Your task to perform on an android device: Search for Mexican restaurants on Maps Image 0: 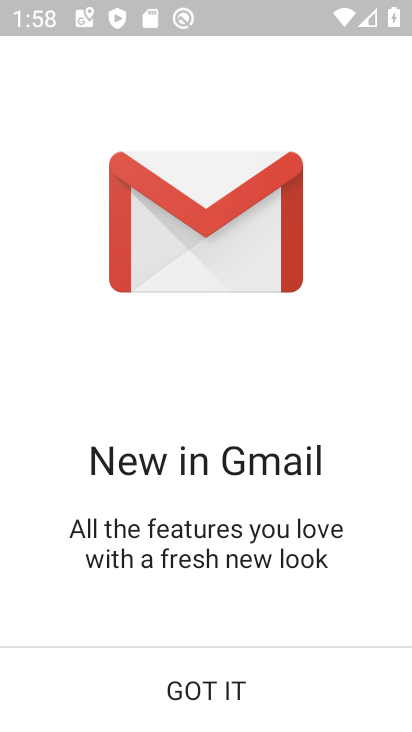
Step 0: press home button
Your task to perform on an android device: Search for Mexican restaurants on Maps Image 1: 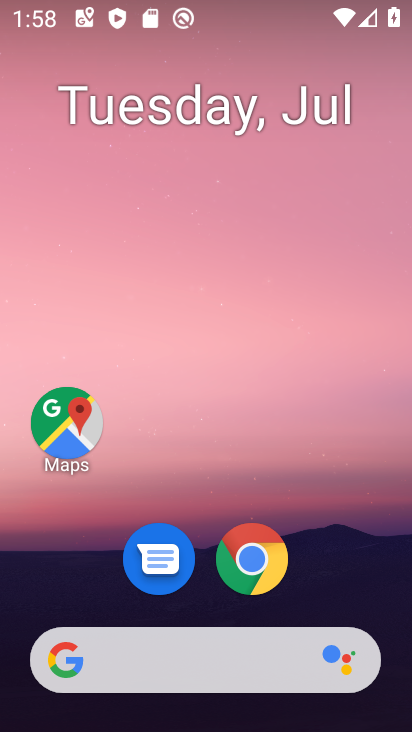
Step 1: drag from (354, 591) to (377, 179)
Your task to perform on an android device: Search for Mexican restaurants on Maps Image 2: 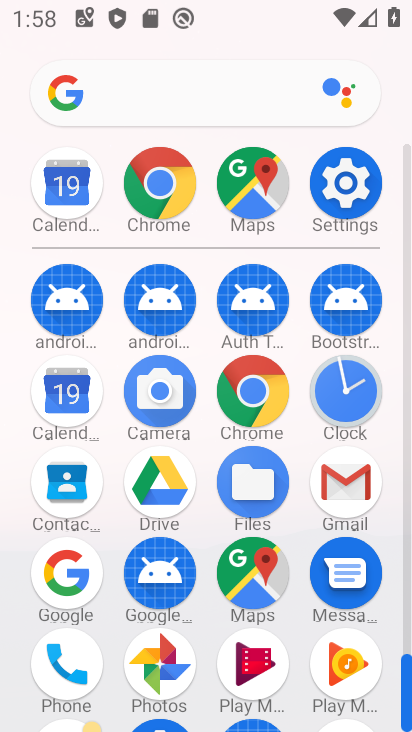
Step 2: click (258, 572)
Your task to perform on an android device: Search for Mexican restaurants on Maps Image 3: 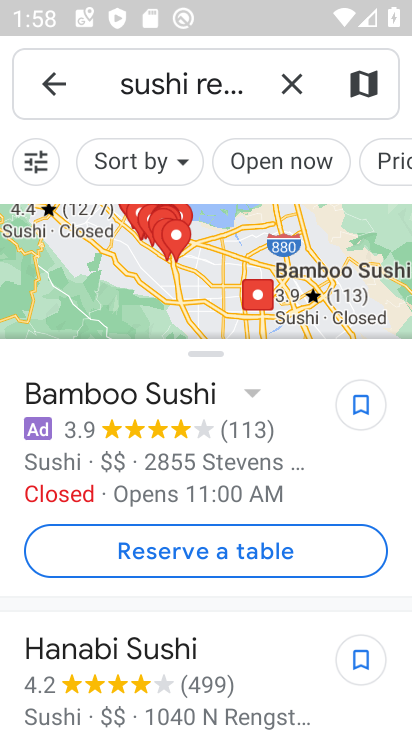
Step 3: press back button
Your task to perform on an android device: Search for Mexican restaurants on Maps Image 4: 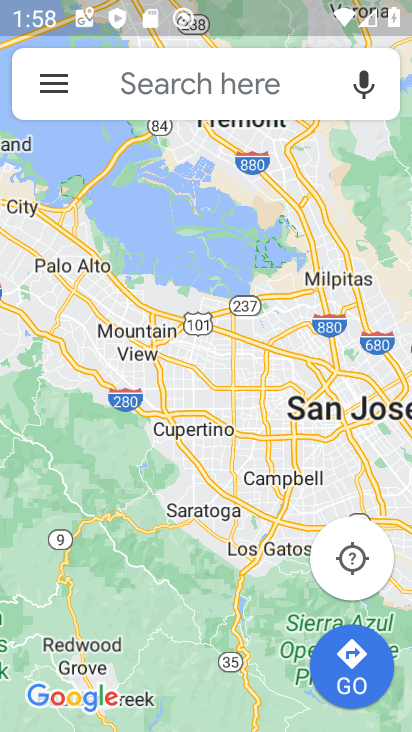
Step 4: click (280, 97)
Your task to perform on an android device: Search for Mexican restaurants on Maps Image 5: 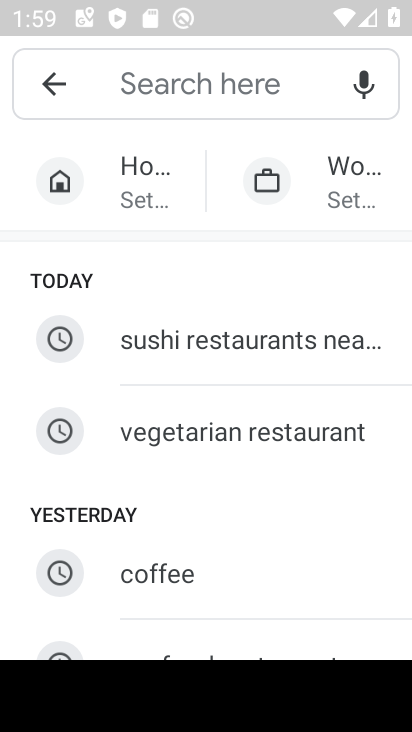
Step 5: type "mexican restaurants"
Your task to perform on an android device: Search for Mexican restaurants on Maps Image 6: 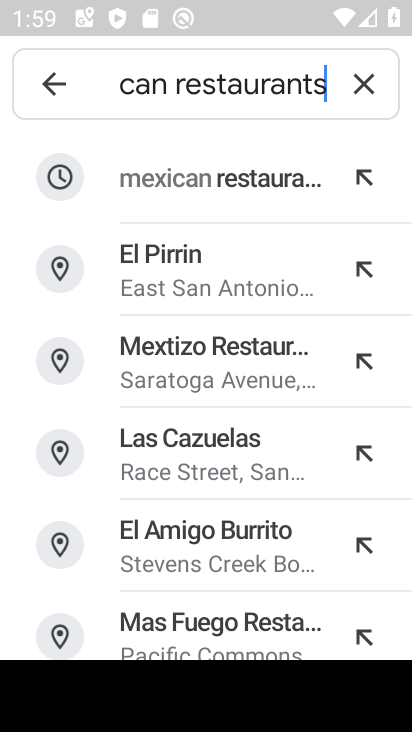
Step 6: click (251, 183)
Your task to perform on an android device: Search for Mexican restaurants on Maps Image 7: 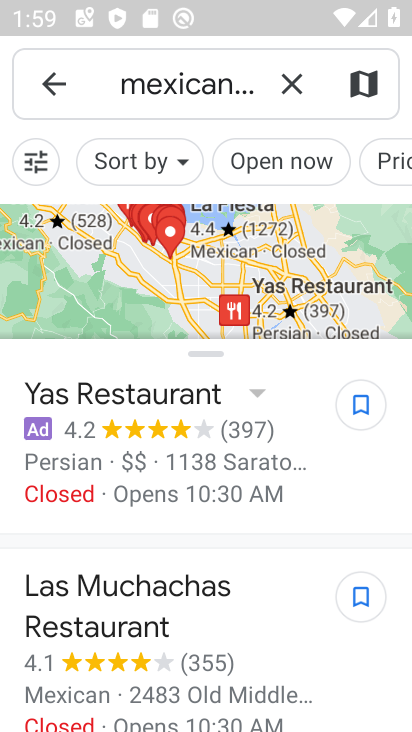
Step 7: task complete